Your task to perform on an android device: open wifi settings Image 0: 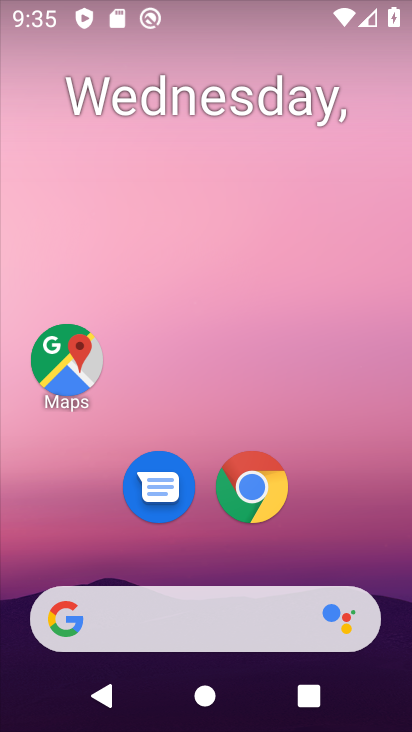
Step 0: drag from (263, 630) to (325, 101)
Your task to perform on an android device: open wifi settings Image 1: 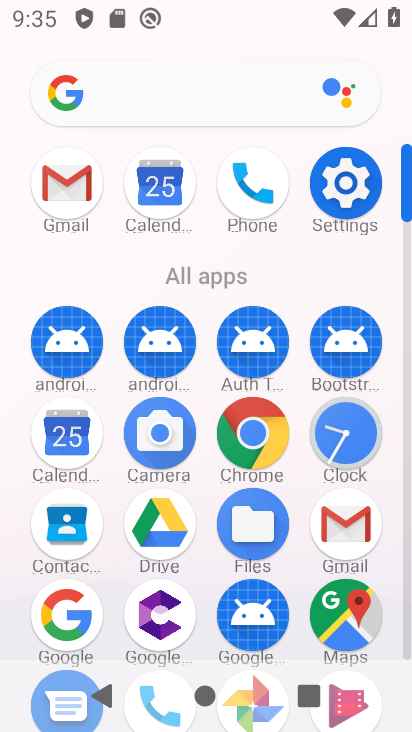
Step 1: click (363, 184)
Your task to perform on an android device: open wifi settings Image 2: 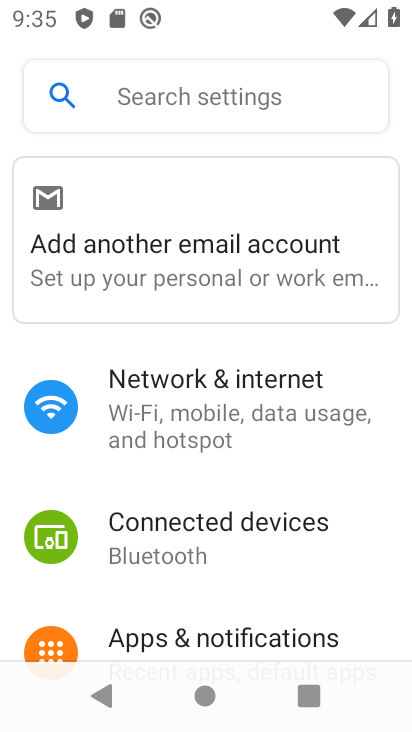
Step 2: click (214, 401)
Your task to perform on an android device: open wifi settings Image 3: 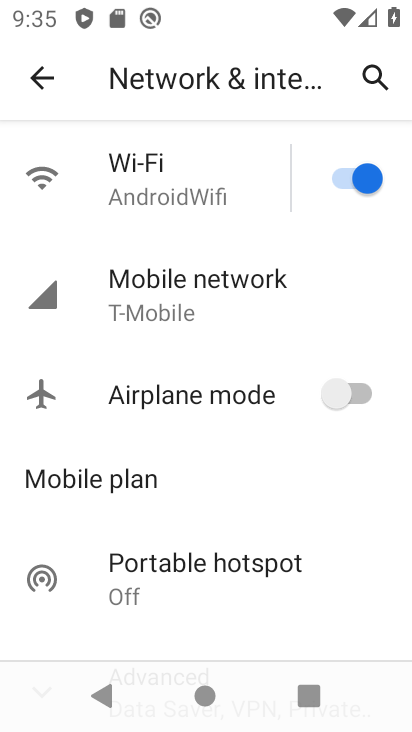
Step 3: click (203, 166)
Your task to perform on an android device: open wifi settings Image 4: 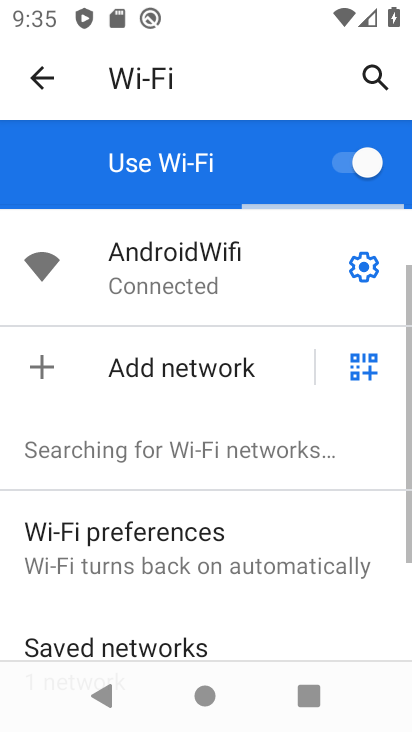
Step 4: click (352, 263)
Your task to perform on an android device: open wifi settings Image 5: 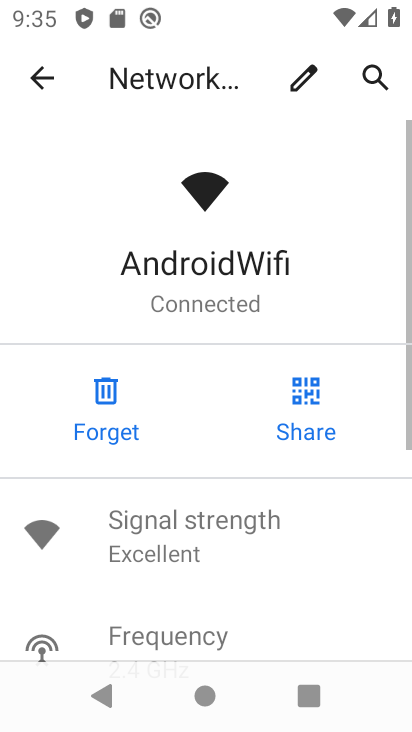
Step 5: task complete